Your task to perform on an android device: Go to calendar. Show me events next week Image 0: 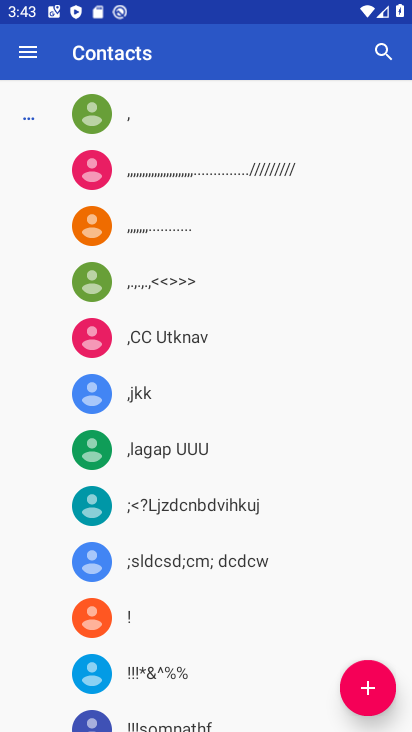
Step 0: press back button
Your task to perform on an android device: Go to calendar. Show me events next week Image 1: 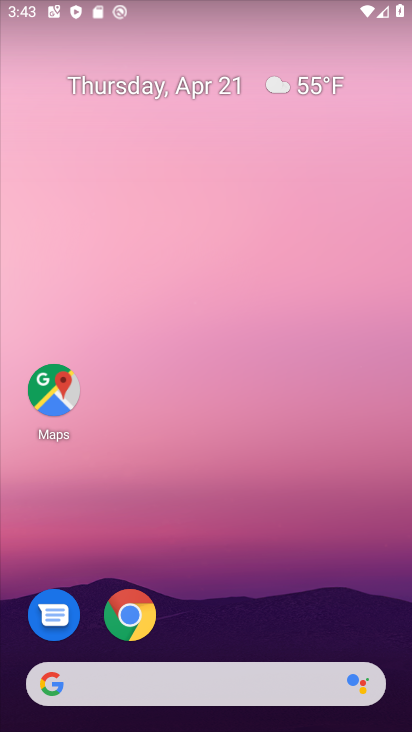
Step 1: drag from (255, 570) to (219, 54)
Your task to perform on an android device: Go to calendar. Show me events next week Image 2: 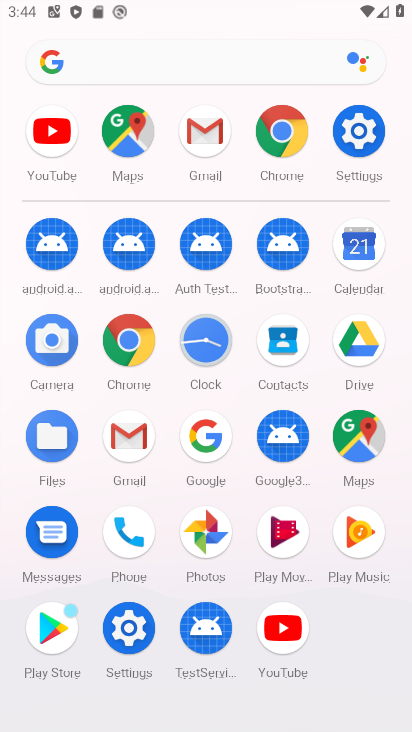
Step 2: click (357, 241)
Your task to perform on an android device: Go to calendar. Show me events next week Image 3: 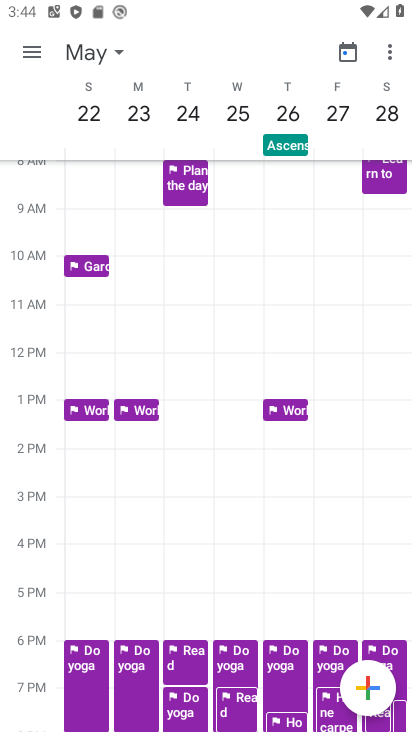
Step 3: drag from (370, 102) to (44, 92)
Your task to perform on an android device: Go to calendar. Show me events next week Image 4: 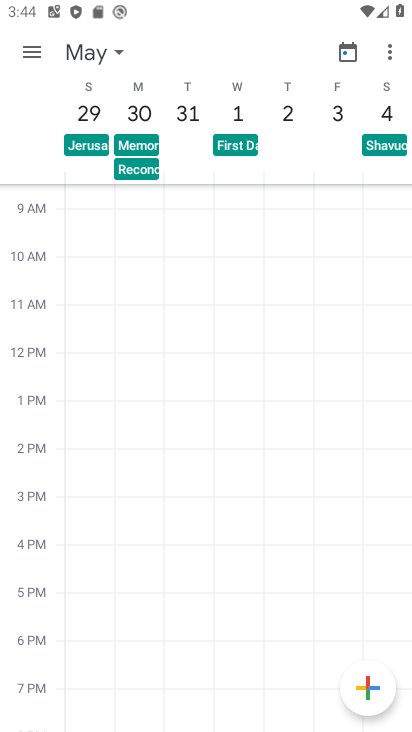
Step 4: click (341, 56)
Your task to perform on an android device: Go to calendar. Show me events next week Image 5: 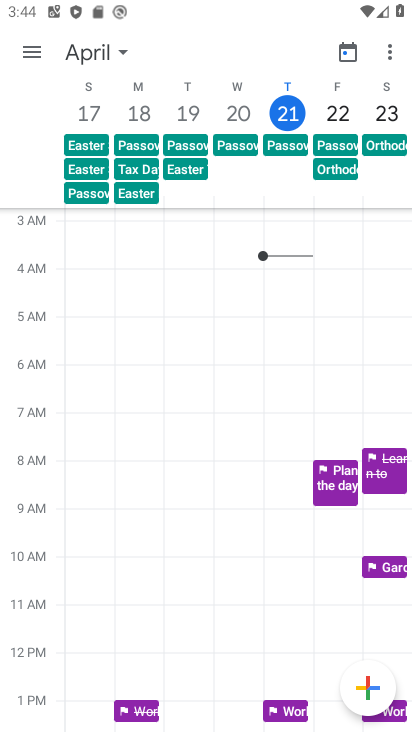
Step 5: task complete